Your task to perform on an android device: check google app version Image 0: 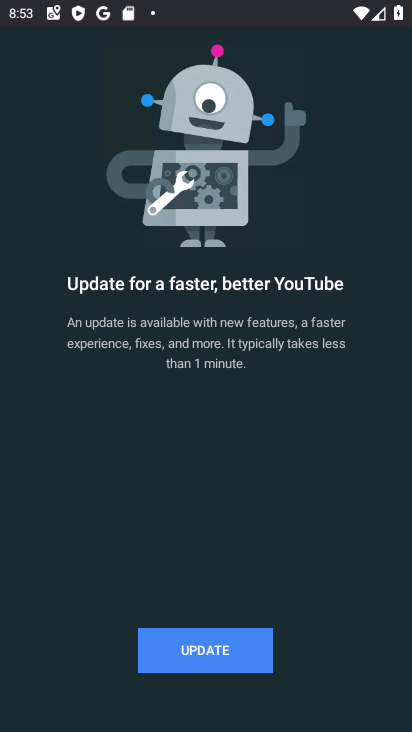
Step 0: press home button
Your task to perform on an android device: check google app version Image 1: 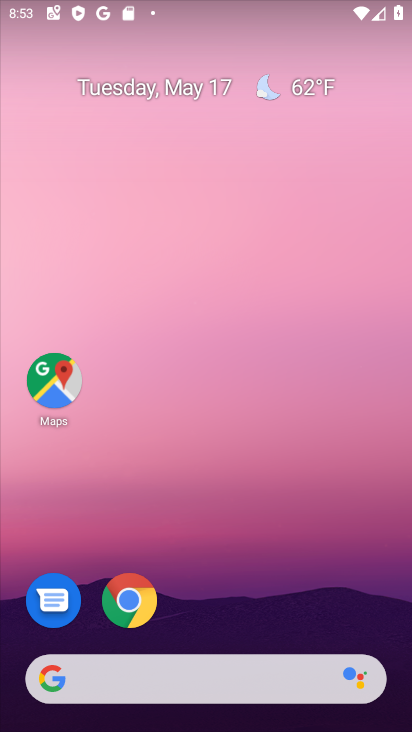
Step 1: drag from (219, 724) to (224, 269)
Your task to perform on an android device: check google app version Image 2: 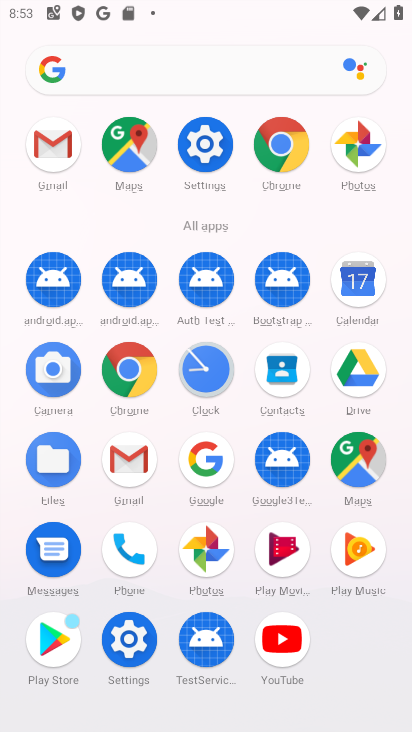
Step 2: click (204, 467)
Your task to perform on an android device: check google app version Image 3: 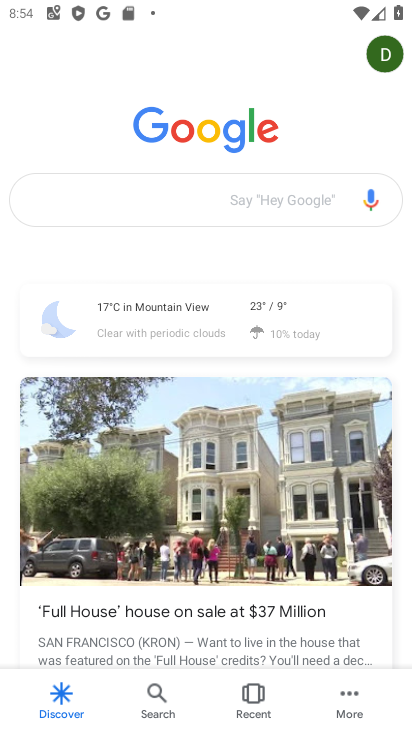
Step 3: click (358, 692)
Your task to perform on an android device: check google app version Image 4: 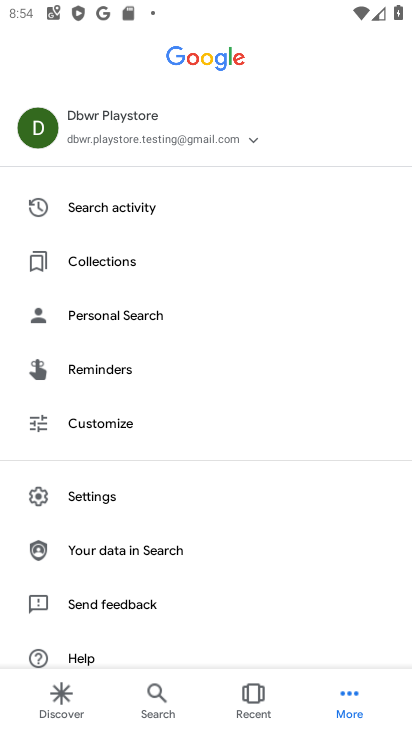
Step 4: click (105, 494)
Your task to perform on an android device: check google app version Image 5: 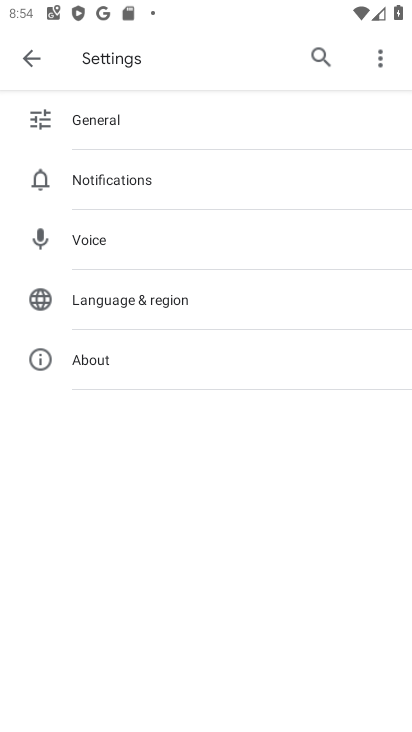
Step 5: click (97, 360)
Your task to perform on an android device: check google app version Image 6: 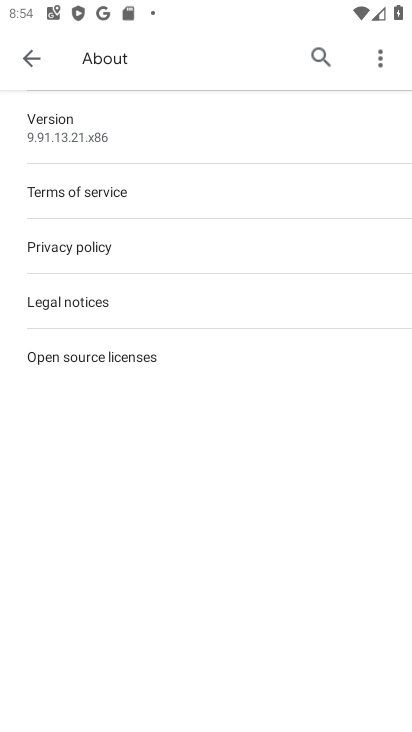
Step 6: task complete